Your task to perform on an android device: Go to Wikipedia Image 0: 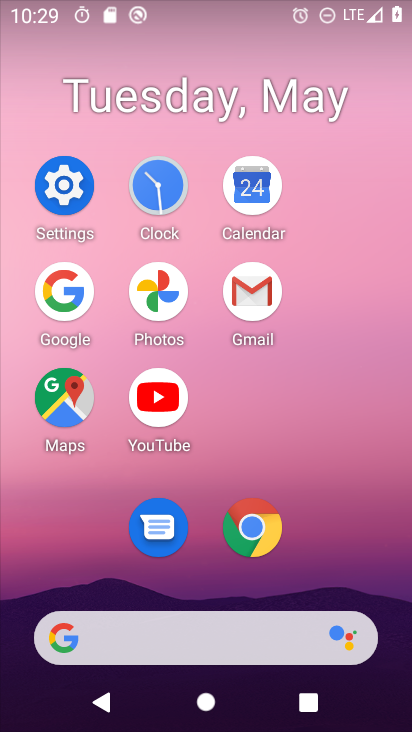
Step 0: click (256, 513)
Your task to perform on an android device: Go to Wikipedia Image 1: 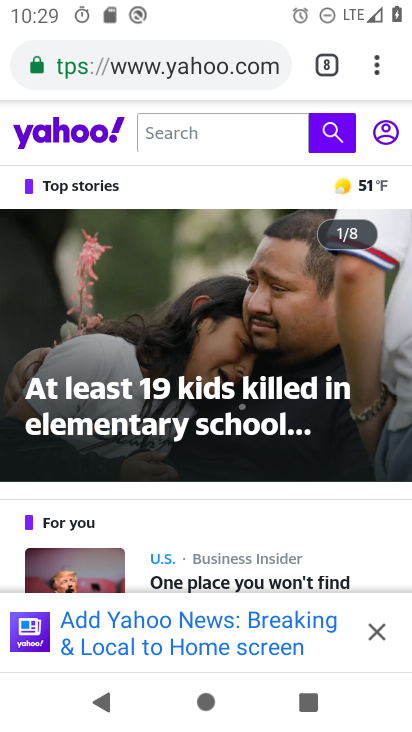
Step 1: click (328, 64)
Your task to perform on an android device: Go to Wikipedia Image 2: 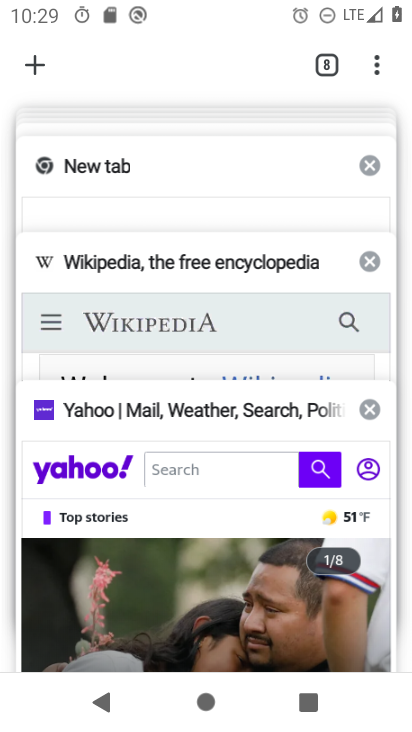
Step 2: click (204, 322)
Your task to perform on an android device: Go to Wikipedia Image 3: 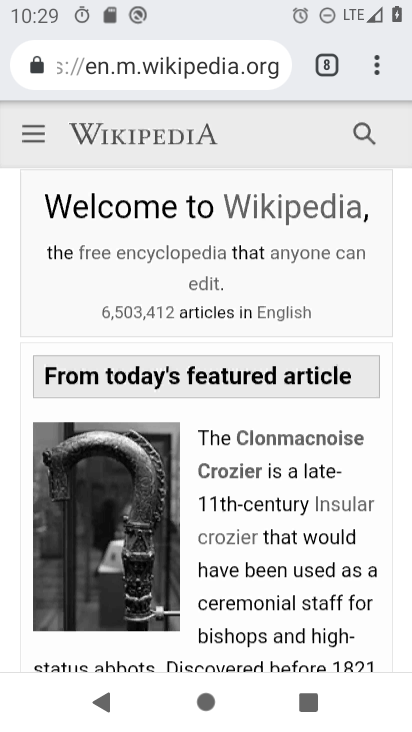
Step 3: task complete